Your task to perform on an android device: move an email to a new category in the gmail app Image 0: 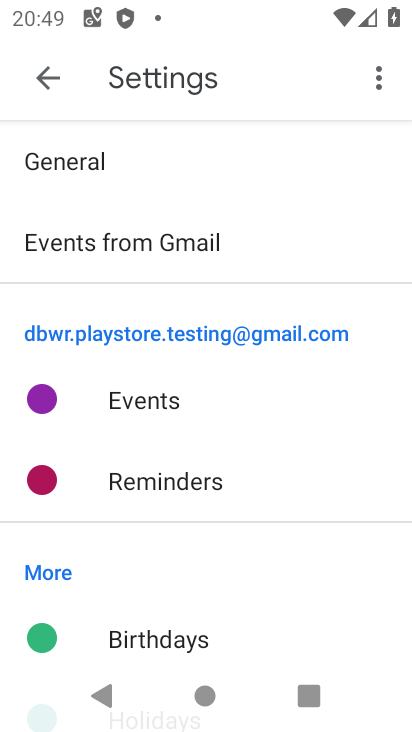
Step 0: press home button
Your task to perform on an android device: move an email to a new category in the gmail app Image 1: 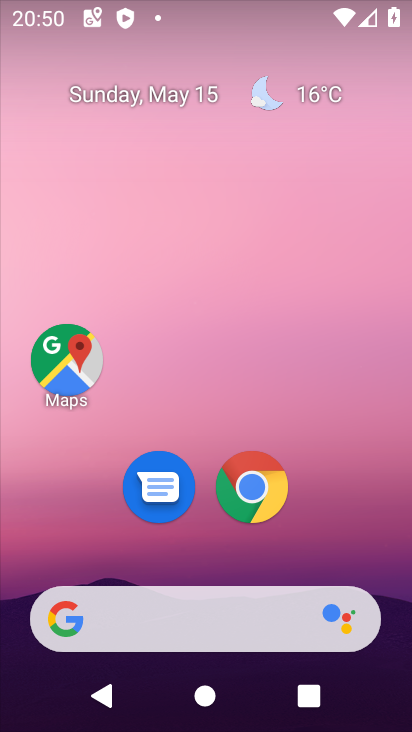
Step 1: drag from (403, 563) to (368, 249)
Your task to perform on an android device: move an email to a new category in the gmail app Image 2: 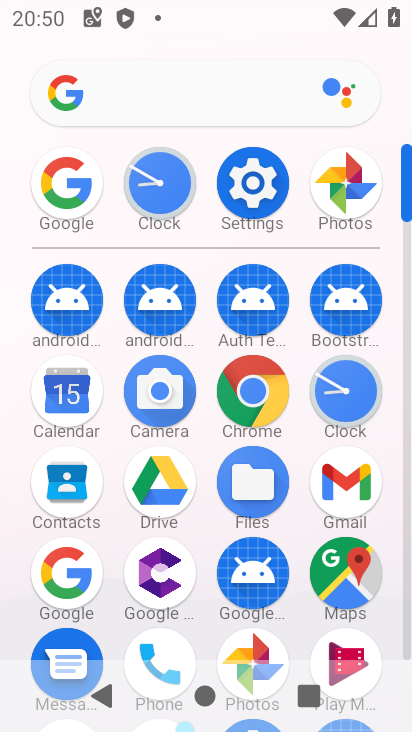
Step 2: click (354, 489)
Your task to perform on an android device: move an email to a new category in the gmail app Image 3: 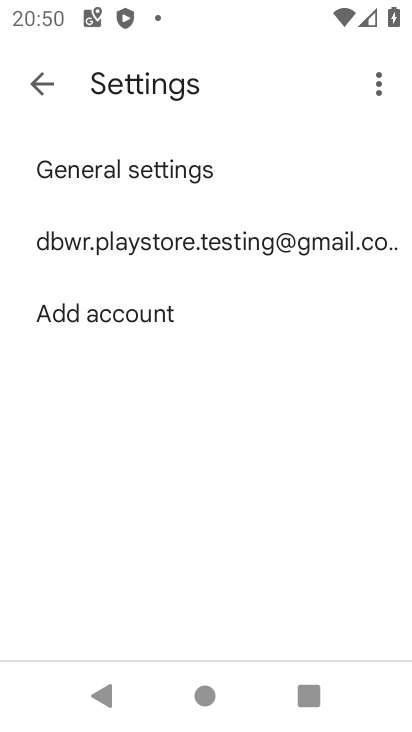
Step 3: click (41, 82)
Your task to perform on an android device: move an email to a new category in the gmail app Image 4: 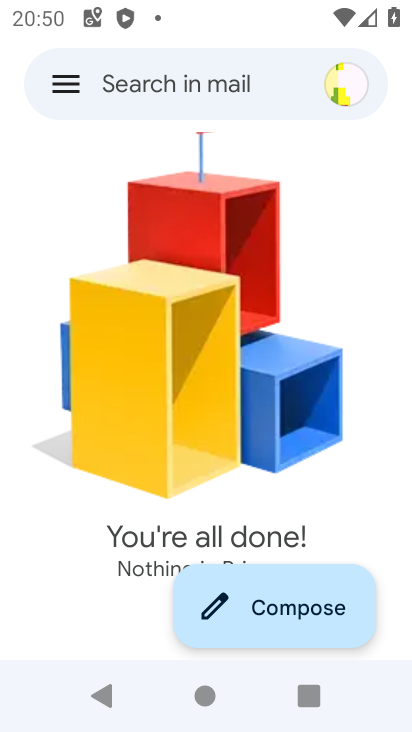
Step 4: click (71, 80)
Your task to perform on an android device: move an email to a new category in the gmail app Image 5: 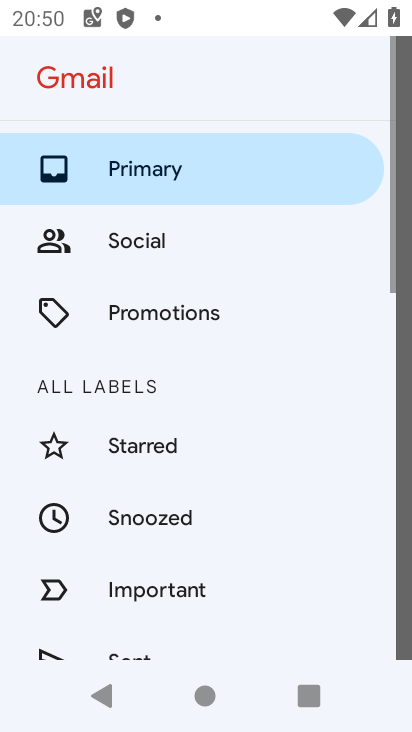
Step 5: click (140, 175)
Your task to perform on an android device: move an email to a new category in the gmail app Image 6: 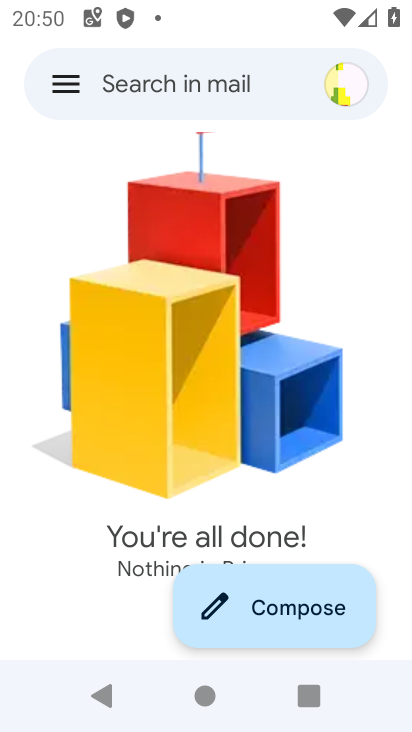
Step 6: task complete